Your task to perform on an android device: move a message to another label in the gmail app Image 0: 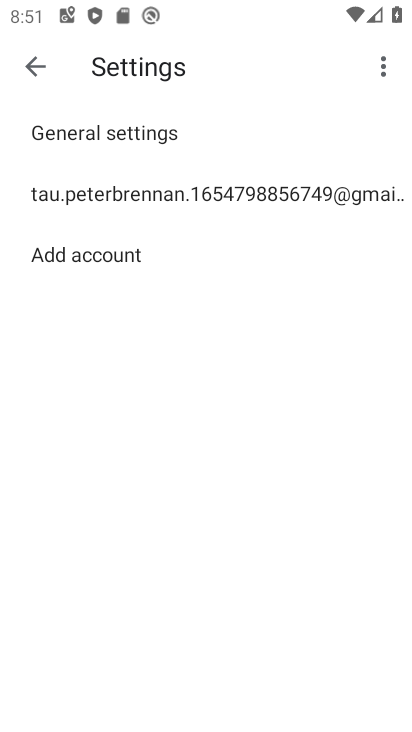
Step 0: press home button
Your task to perform on an android device: move a message to another label in the gmail app Image 1: 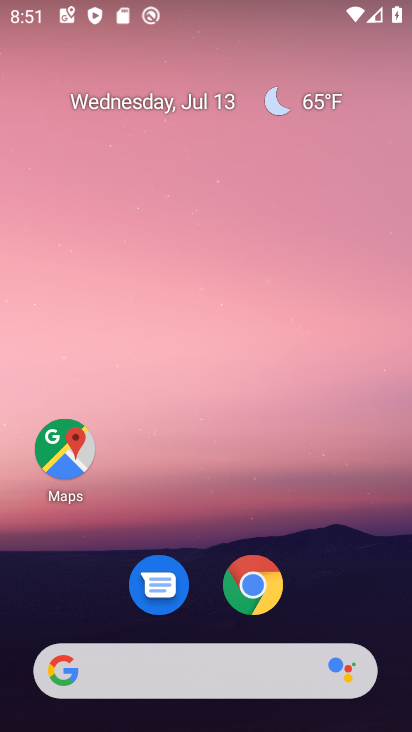
Step 1: drag from (316, 584) to (261, 59)
Your task to perform on an android device: move a message to another label in the gmail app Image 2: 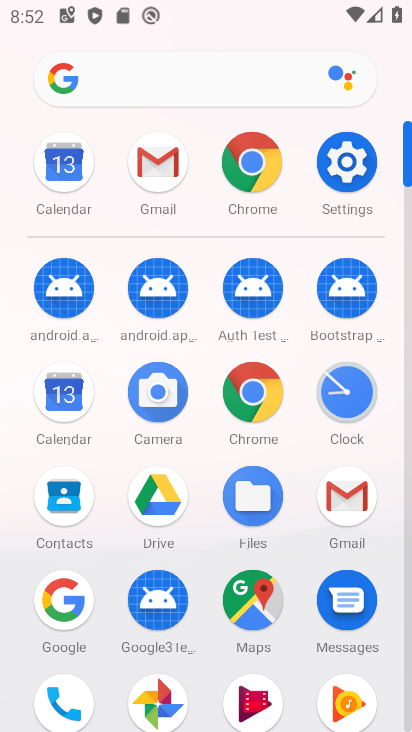
Step 2: click (165, 166)
Your task to perform on an android device: move a message to another label in the gmail app Image 3: 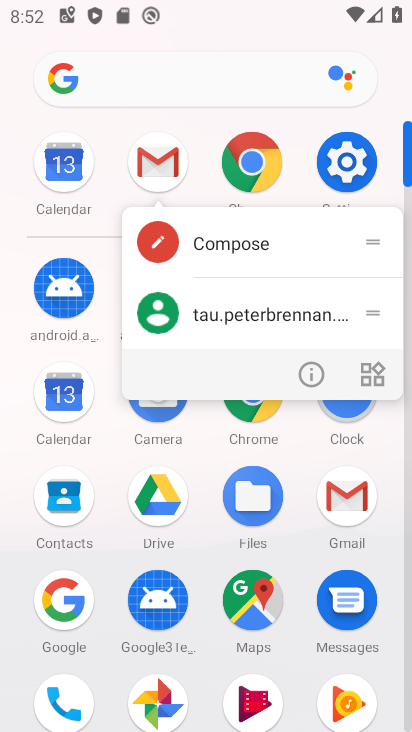
Step 3: click (165, 166)
Your task to perform on an android device: move a message to another label in the gmail app Image 4: 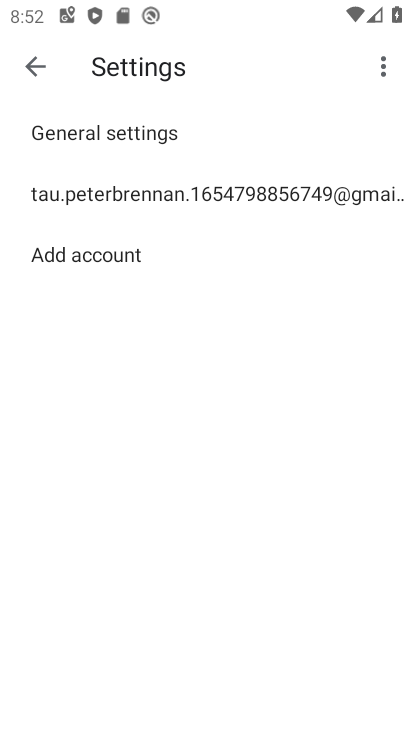
Step 4: click (41, 58)
Your task to perform on an android device: move a message to another label in the gmail app Image 5: 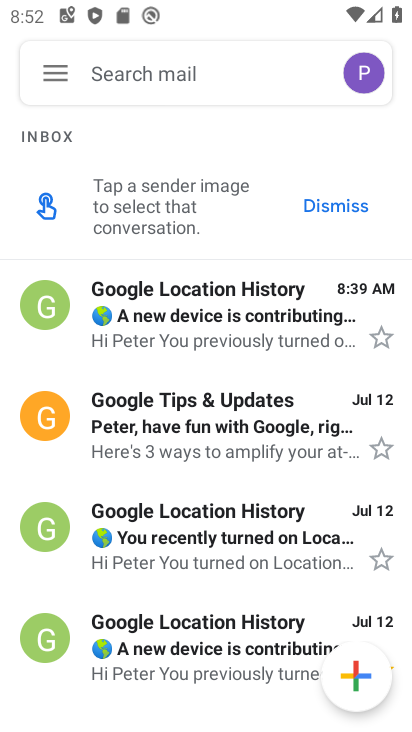
Step 5: drag from (253, 572) to (193, 189)
Your task to perform on an android device: move a message to another label in the gmail app Image 6: 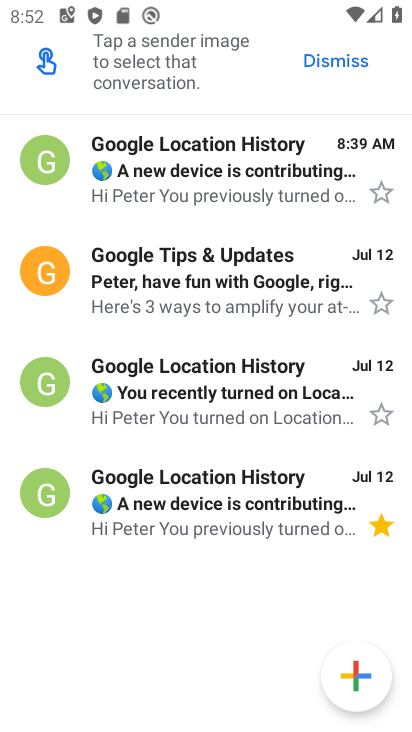
Step 6: click (205, 510)
Your task to perform on an android device: move a message to another label in the gmail app Image 7: 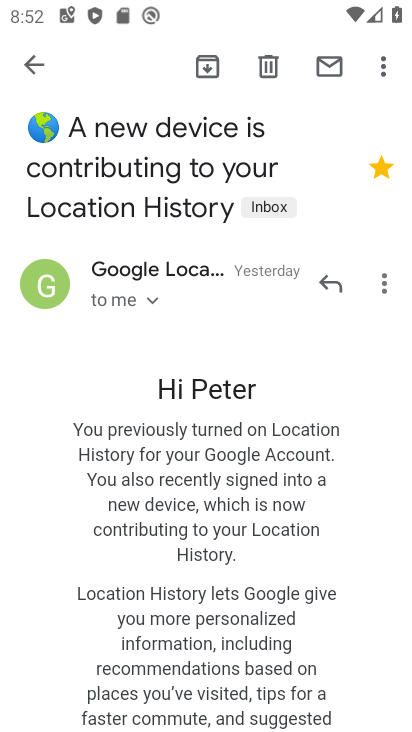
Step 7: click (381, 70)
Your task to perform on an android device: move a message to another label in the gmail app Image 8: 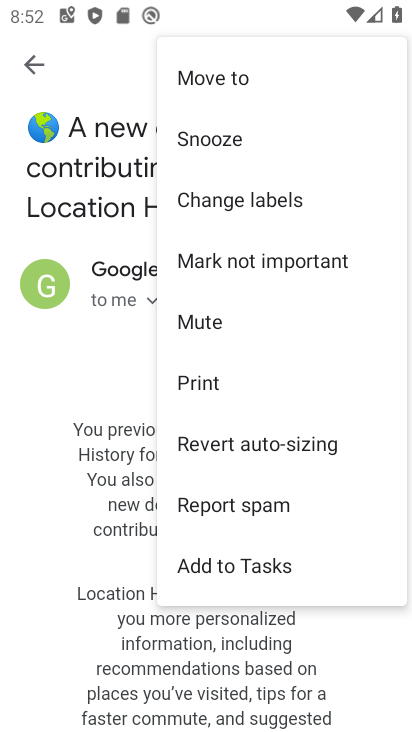
Step 8: click (288, 192)
Your task to perform on an android device: move a message to another label in the gmail app Image 9: 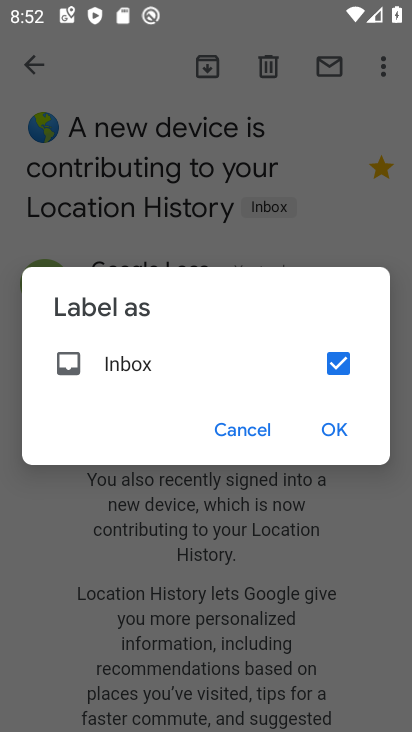
Step 9: click (337, 359)
Your task to perform on an android device: move a message to another label in the gmail app Image 10: 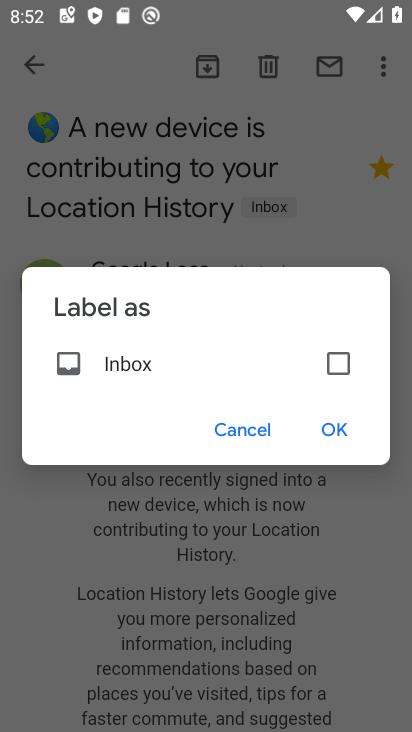
Step 10: click (338, 426)
Your task to perform on an android device: move a message to another label in the gmail app Image 11: 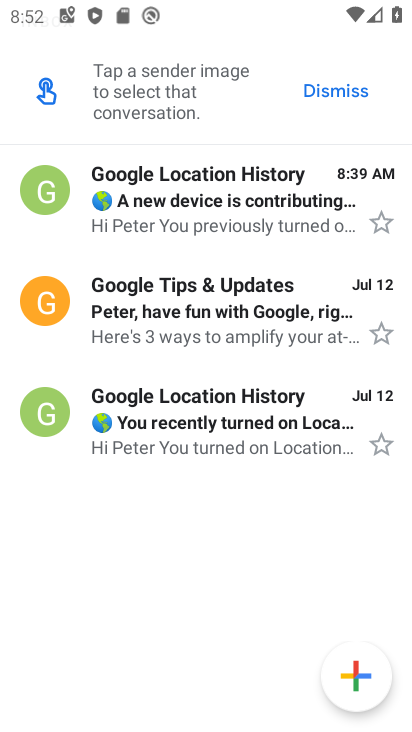
Step 11: press back button
Your task to perform on an android device: move a message to another label in the gmail app Image 12: 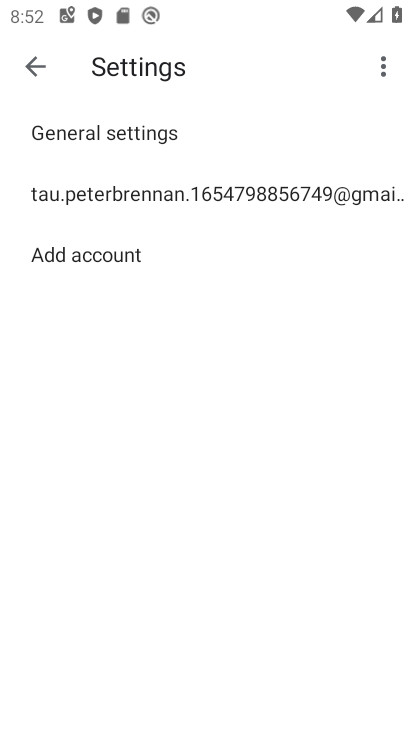
Step 12: click (38, 65)
Your task to perform on an android device: move a message to another label in the gmail app Image 13: 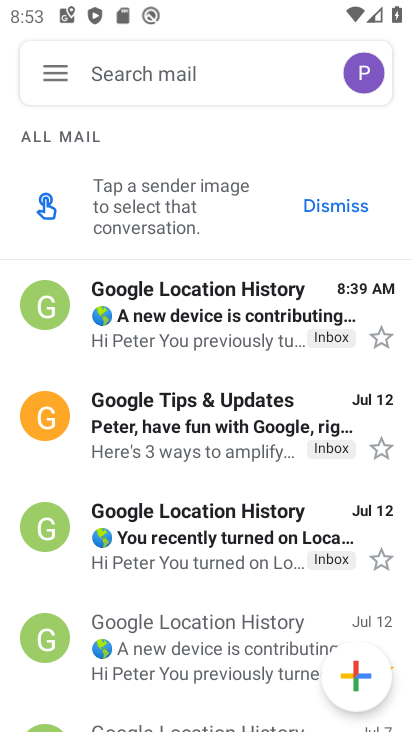
Step 13: task complete